Your task to perform on an android device: Go to display settings Image 0: 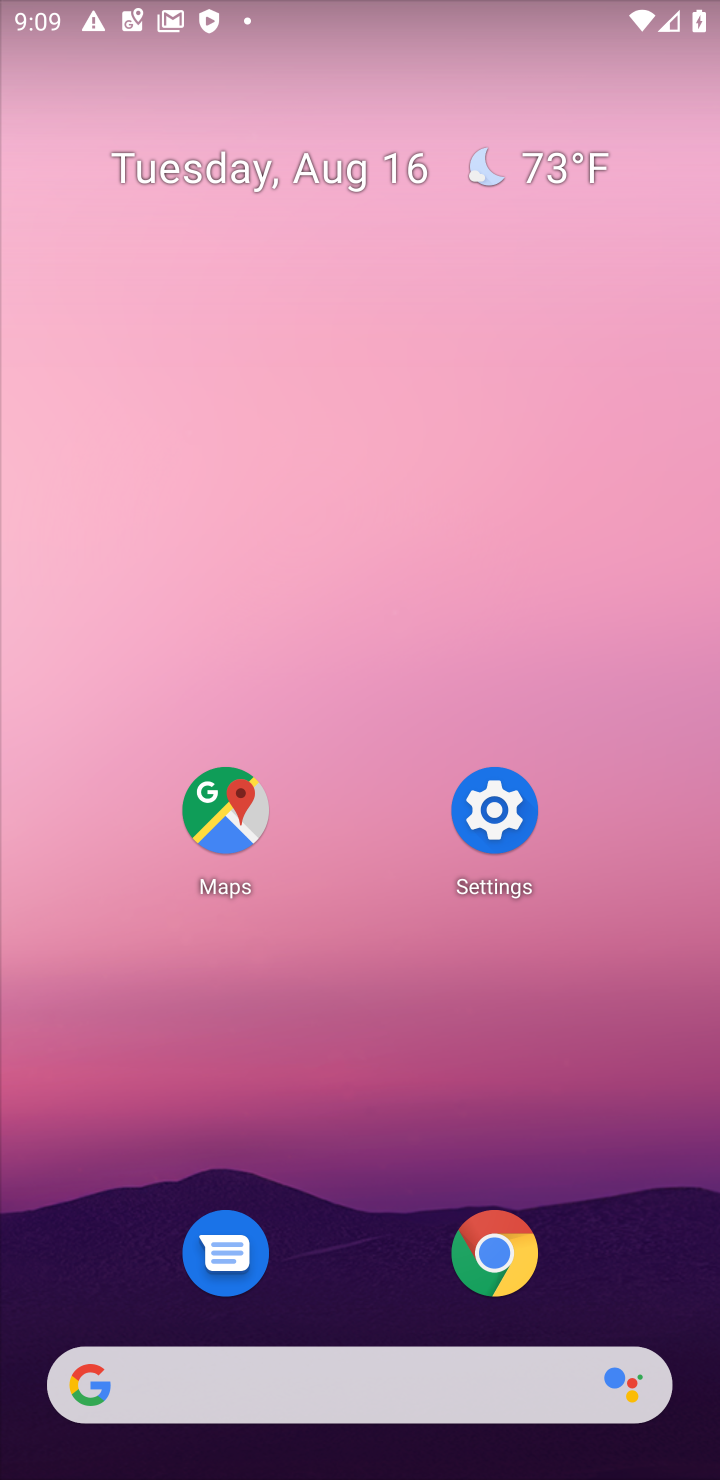
Step 0: click (501, 800)
Your task to perform on an android device: Go to display settings Image 1: 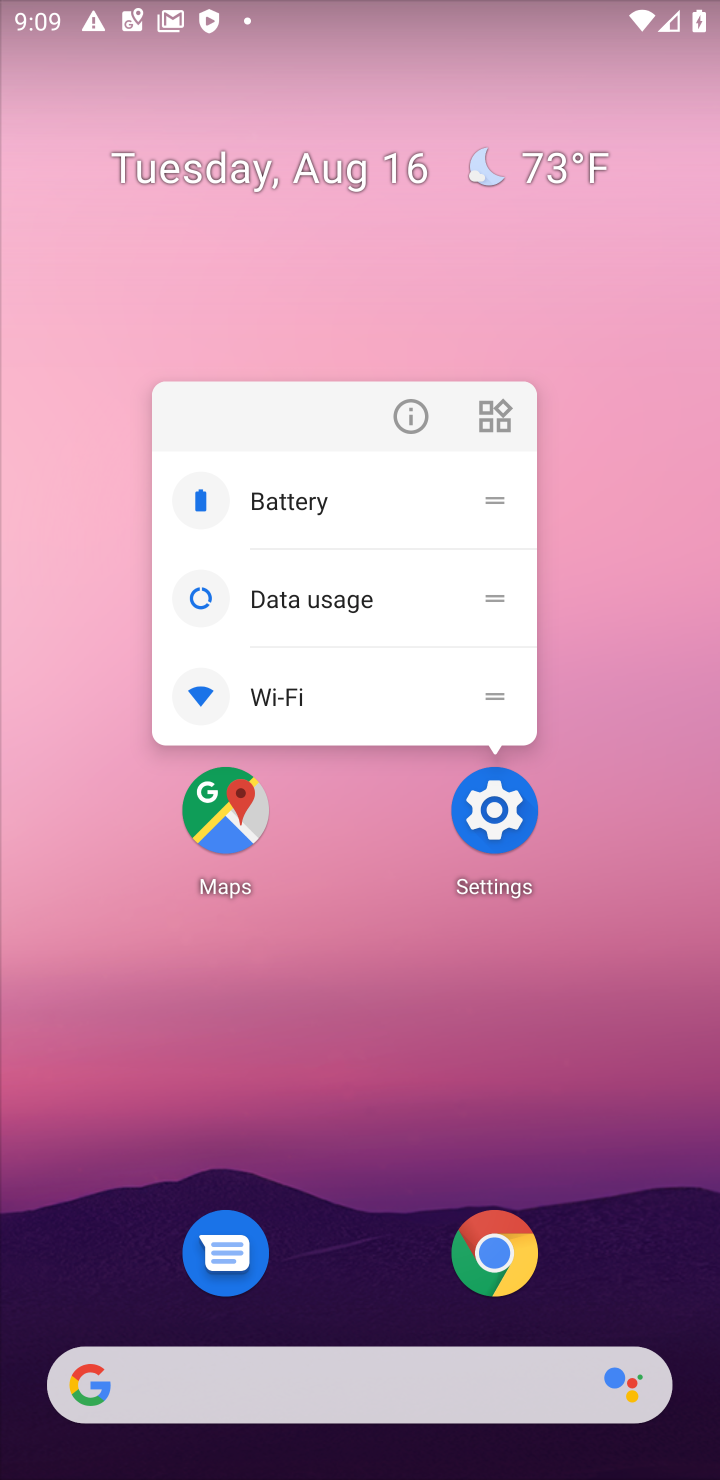
Step 1: click (501, 798)
Your task to perform on an android device: Go to display settings Image 2: 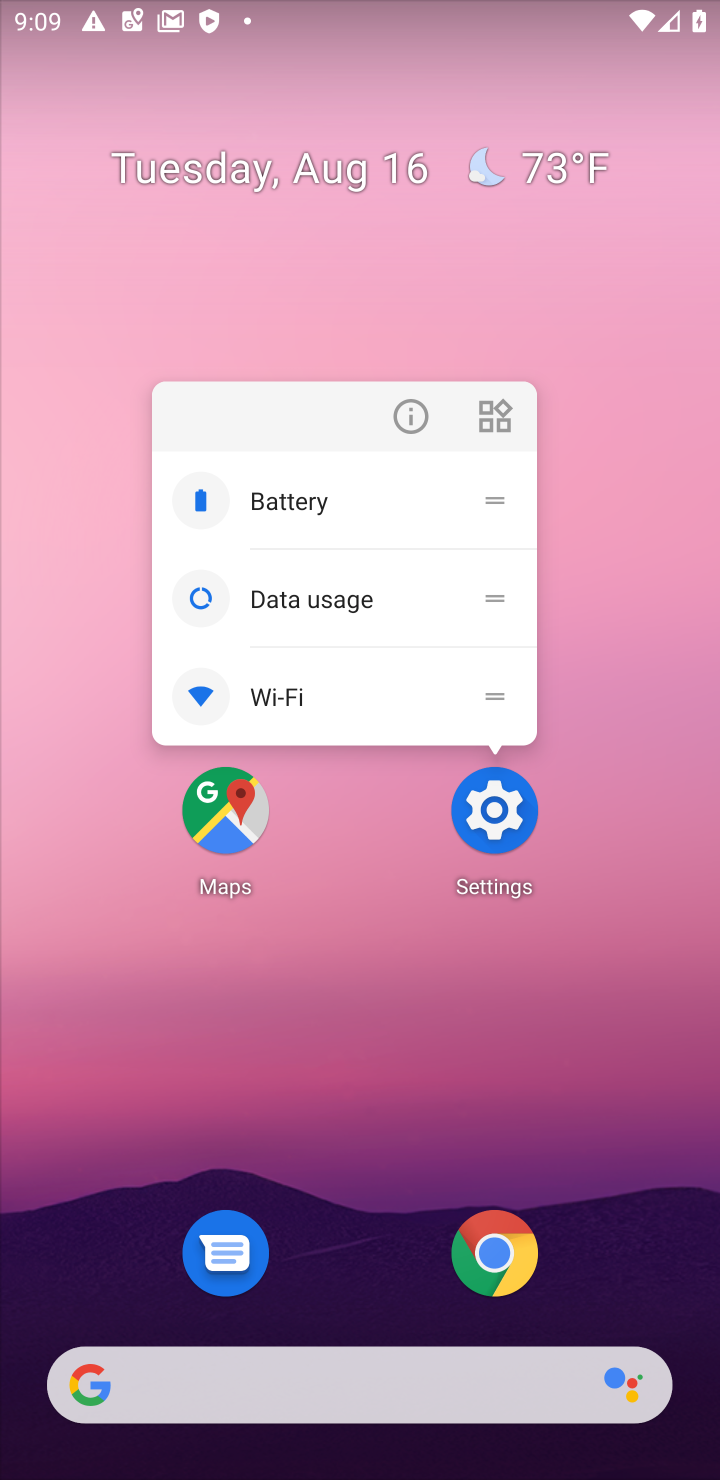
Step 2: click (506, 806)
Your task to perform on an android device: Go to display settings Image 3: 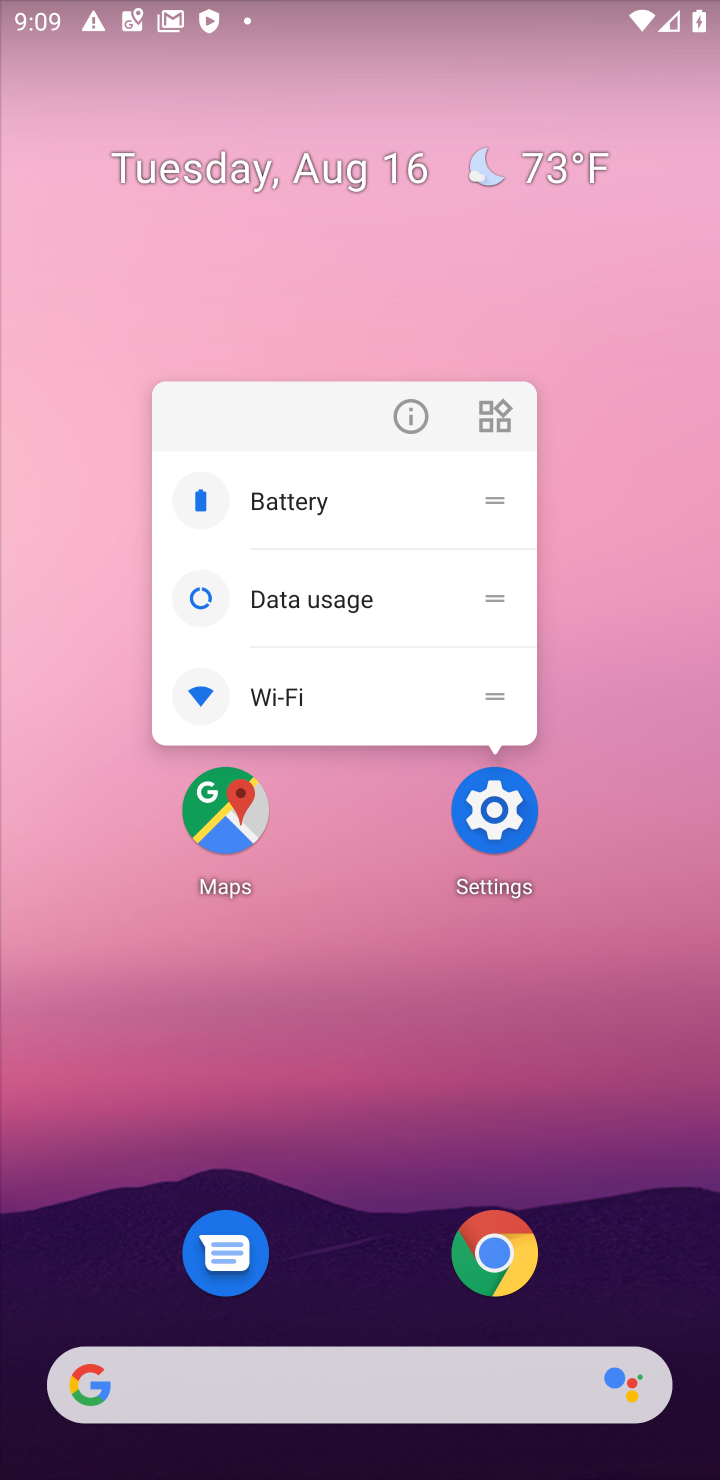
Step 3: click (493, 817)
Your task to perform on an android device: Go to display settings Image 4: 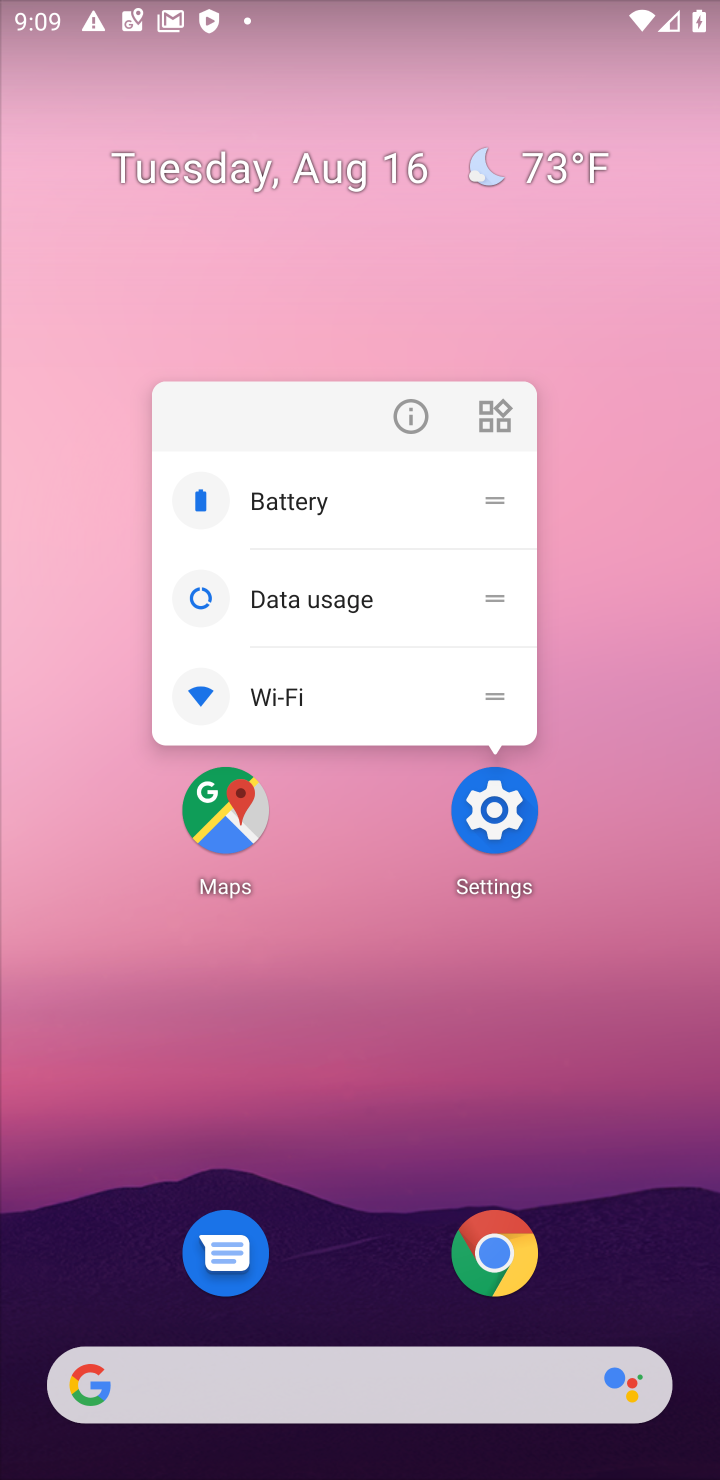
Step 4: click (493, 821)
Your task to perform on an android device: Go to display settings Image 5: 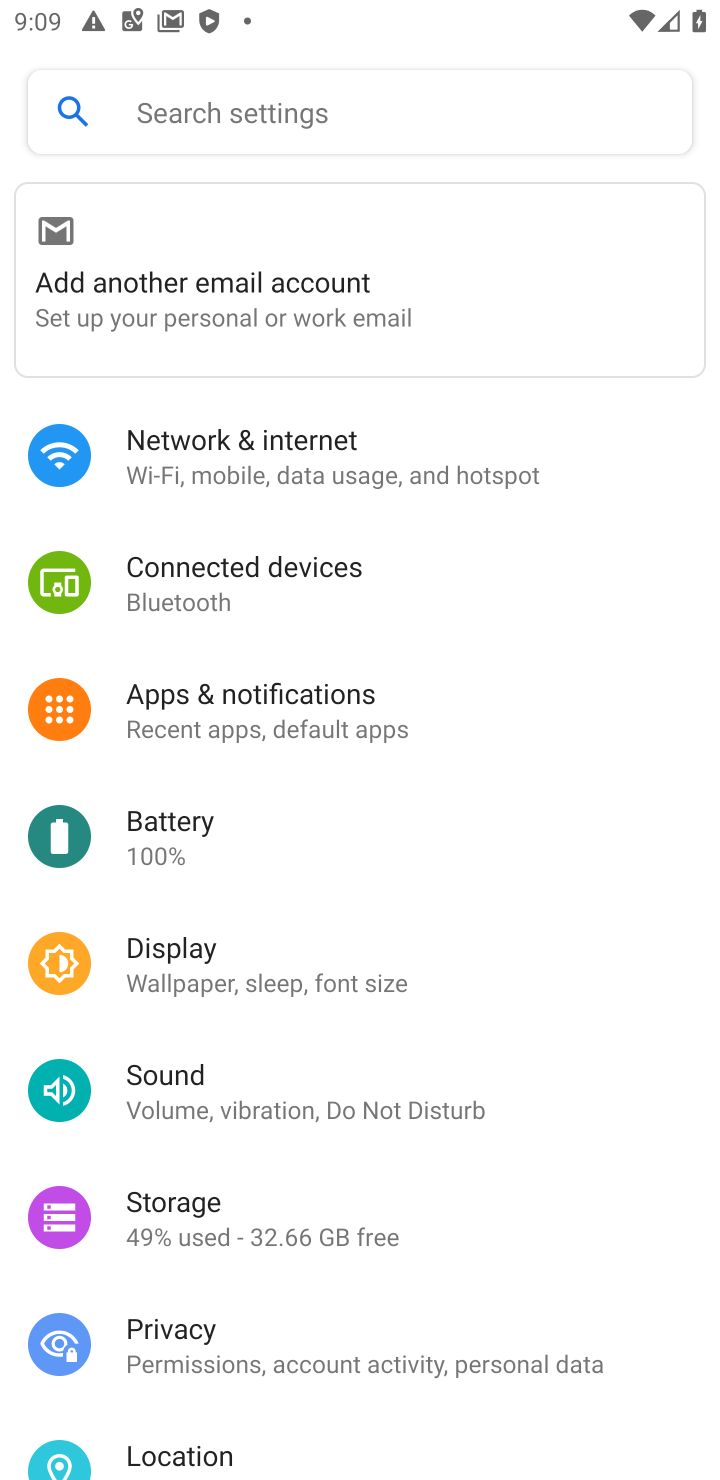
Step 5: click (189, 964)
Your task to perform on an android device: Go to display settings Image 6: 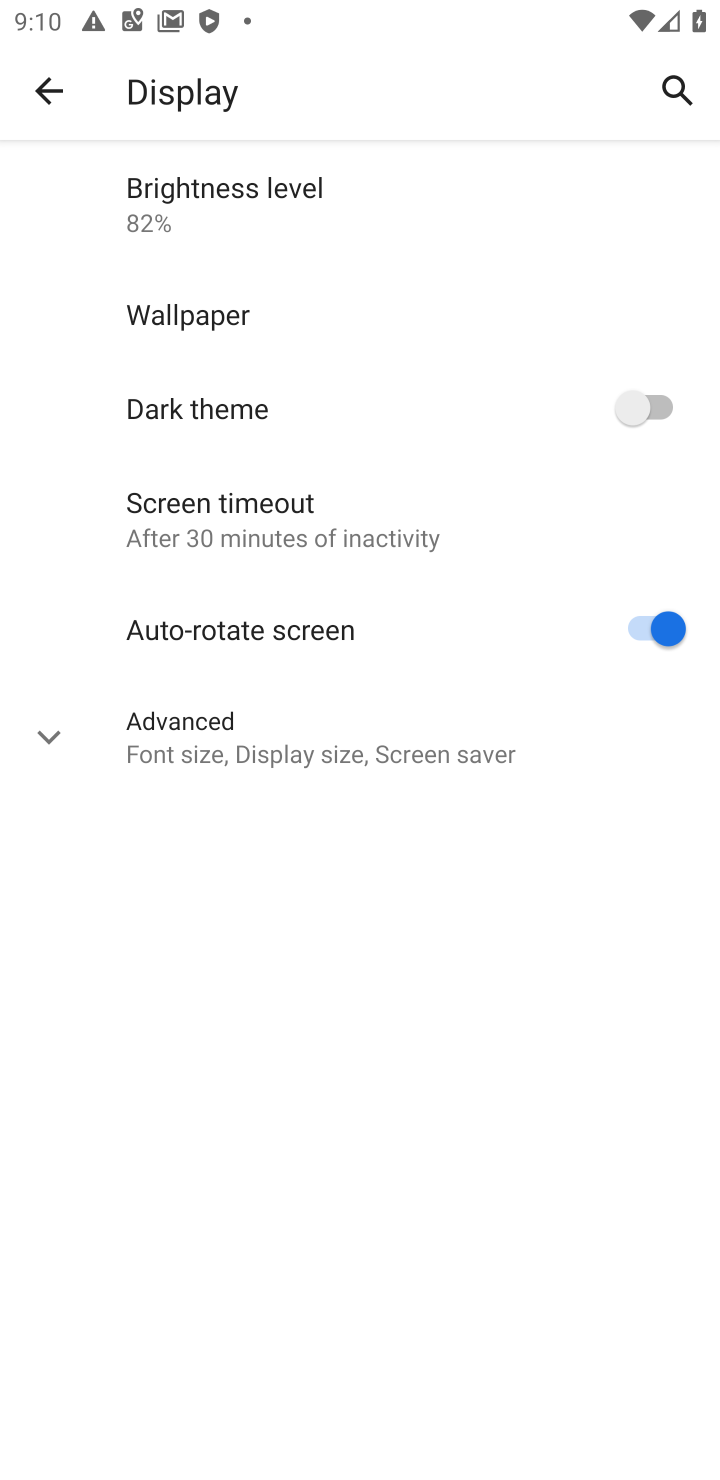
Step 6: task complete